Your task to perform on an android device: Show me popular videos on Youtube Image 0: 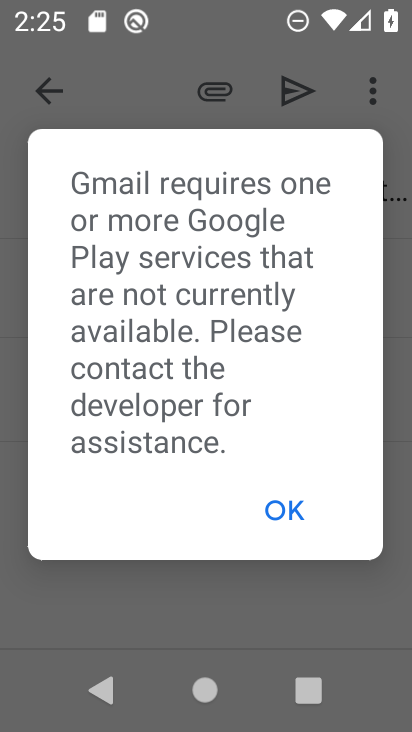
Step 0: press home button
Your task to perform on an android device: Show me popular videos on Youtube Image 1: 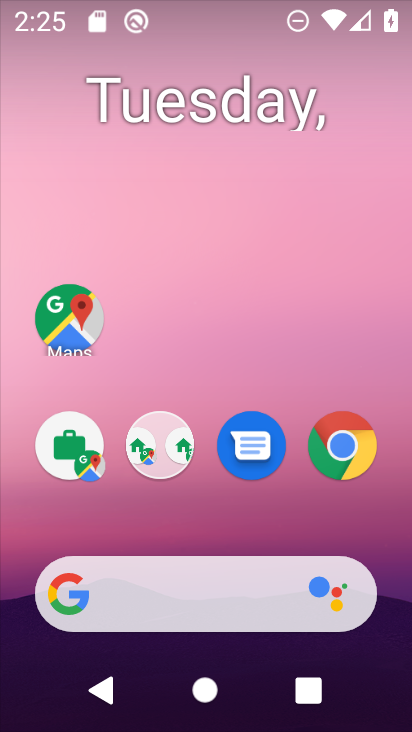
Step 1: drag from (259, 516) to (293, 178)
Your task to perform on an android device: Show me popular videos on Youtube Image 2: 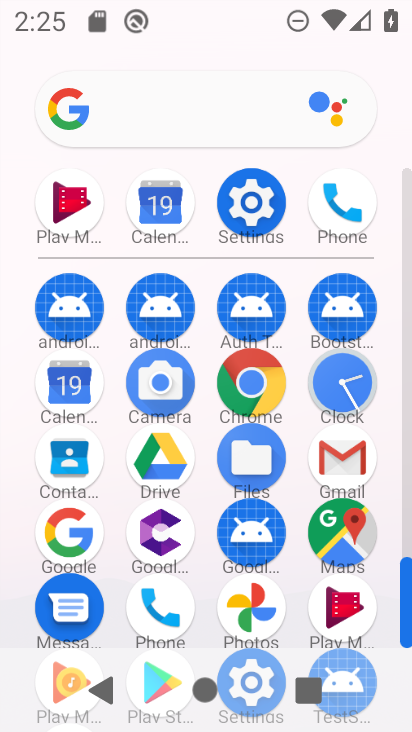
Step 2: click (197, 236)
Your task to perform on an android device: Show me popular videos on Youtube Image 3: 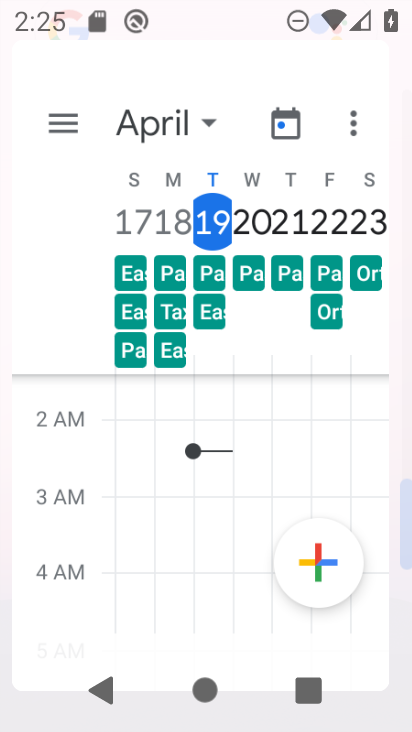
Step 3: drag from (204, 473) to (214, 220)
Your task to perform on an android device: Show me popular videos on Youtube Image 4: 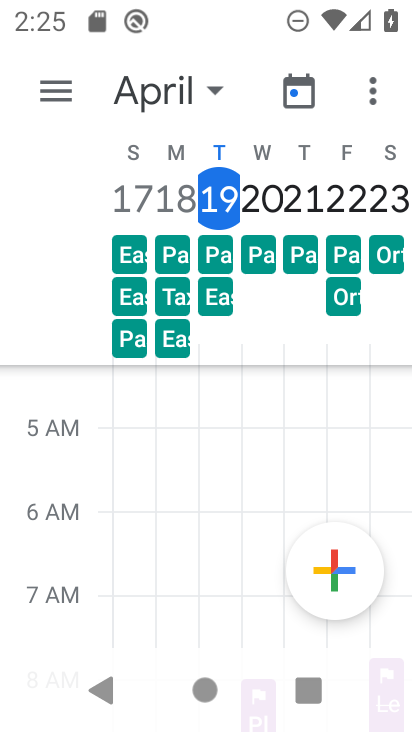
Step 4: press home button
Your task to perform on an android device: Show me popular videos on Youtube Image 5: 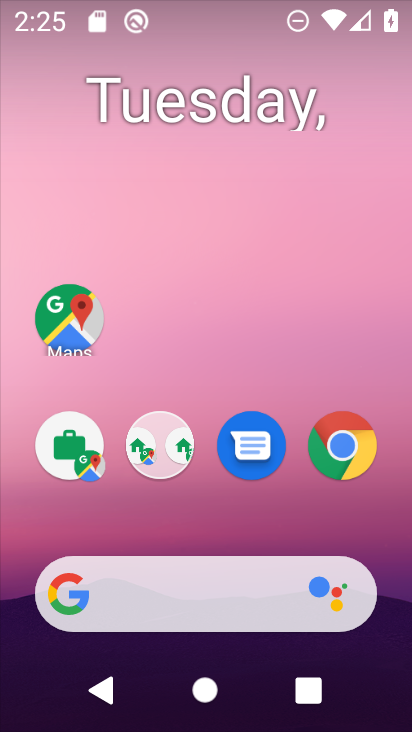
Step 5: drag from (220, 506) to (279, 191)
Your task to perform on an android device: Show me popular videos on Youtube Image 6: 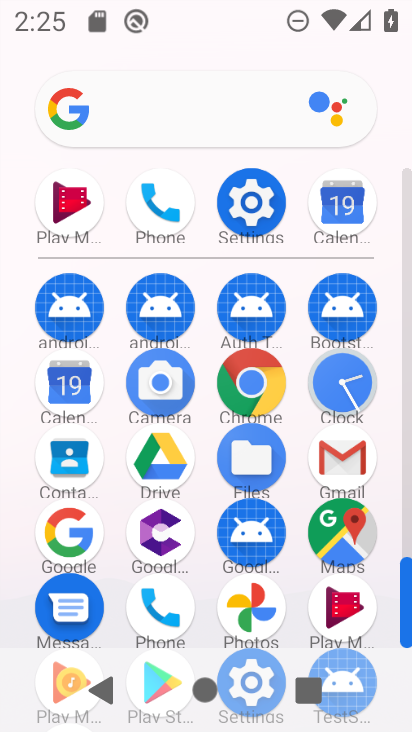
Step 6: drag from (201, 512) to (205, 190)
Your task to perform on an android device: Show me popular videos on Youtube Image 7: 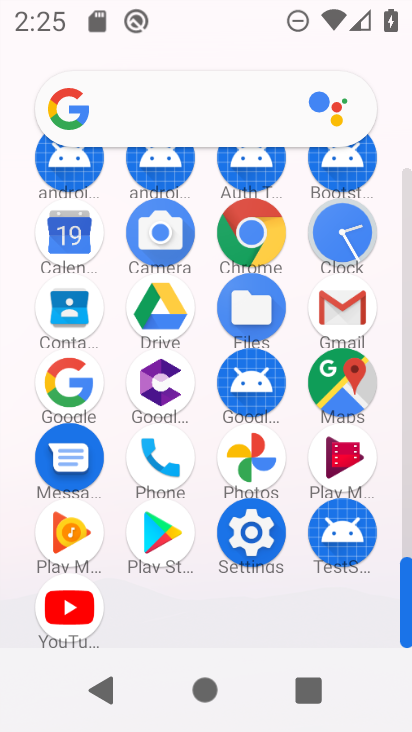
Step 7: click (93, 618)
Your task to perform on an android device: Show me popular videos on Youtube Image 8: 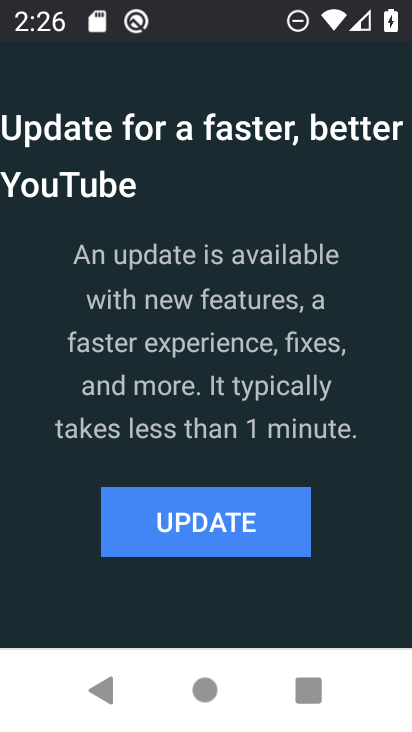
Step 8: click (219, 496)
Your task to perform on an android device: Show me popular videos on Youtube Image 9: 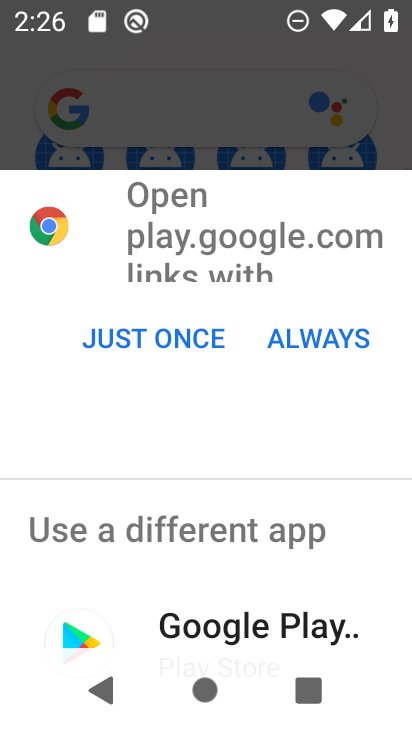
Step 9: click (293, 633)
Your task to perform on an android device: Show me popular videos on Youtube Image 10: 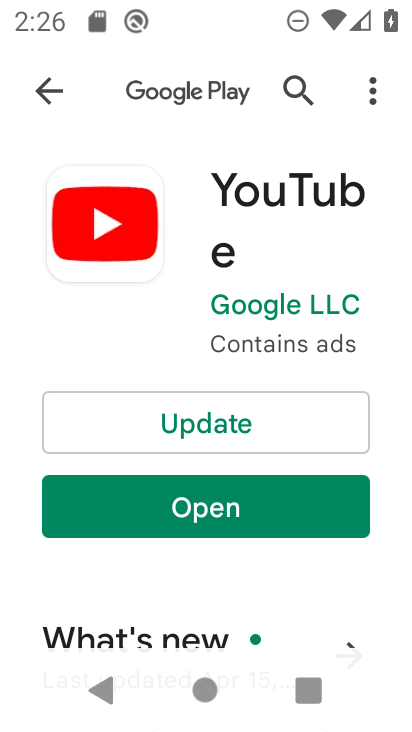
Step 10: click (282, 413)
Your task to perform on an android device: Show me popular videos on Youtube Image 11: 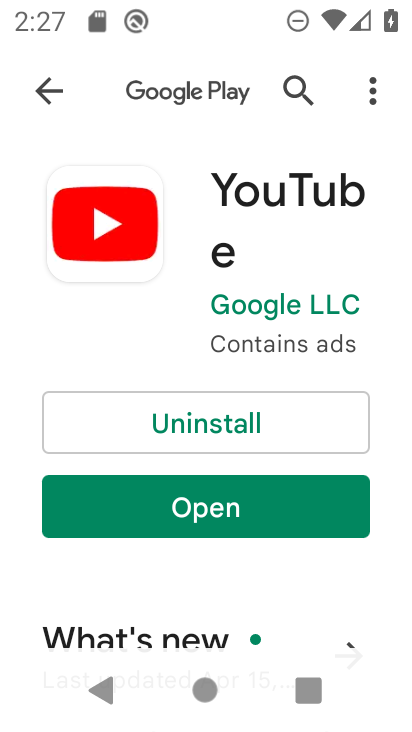
Step 11: click (245, 521)
Your task to perform on an android device: Show me popular videos on Youtube Image 12: 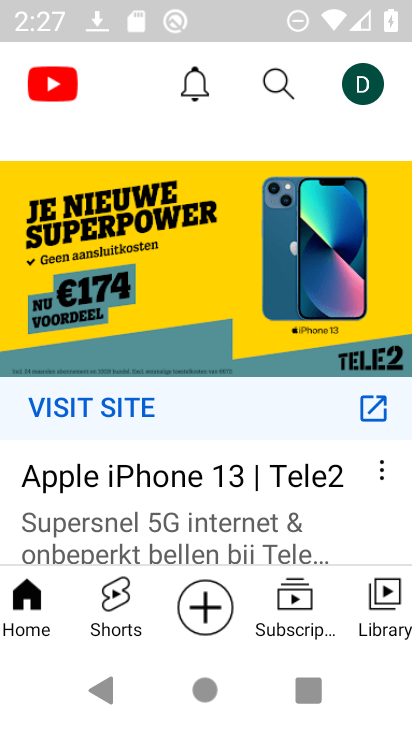
Step 12: drag from (205, 340) to (216, 540)
Your task to perform on an android device: Show me popular videos on Youtube Image 13: 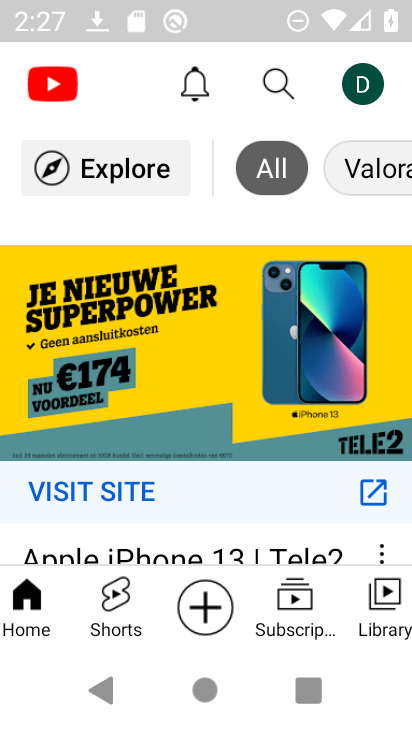
Step 13: click (125, 177)
Your task to perform on an android device: Show me popular videos on Youtube Image 14: 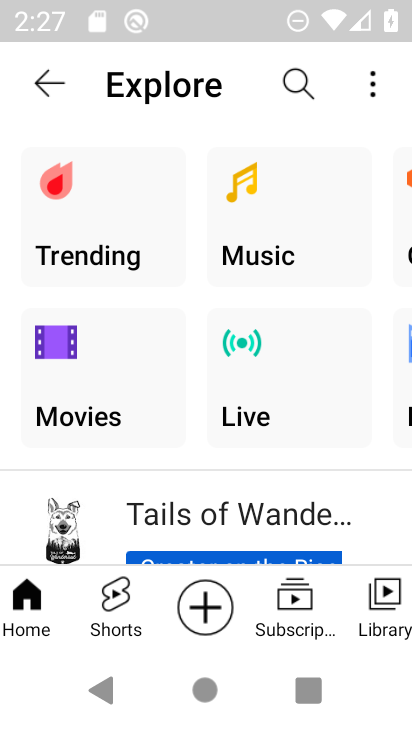
Step 14: drag from (277, 327) to (46, 387)
Your task to perform on an android device: Show me popular videos on Youtube Image 15: 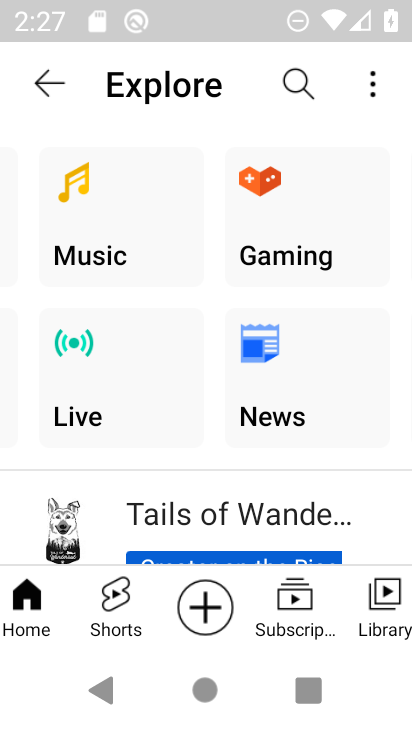
Step 15: drag from (267, 334) to (65, 357)
Your task to perform on an android device: Show me popular videos on Youtube Image 16: 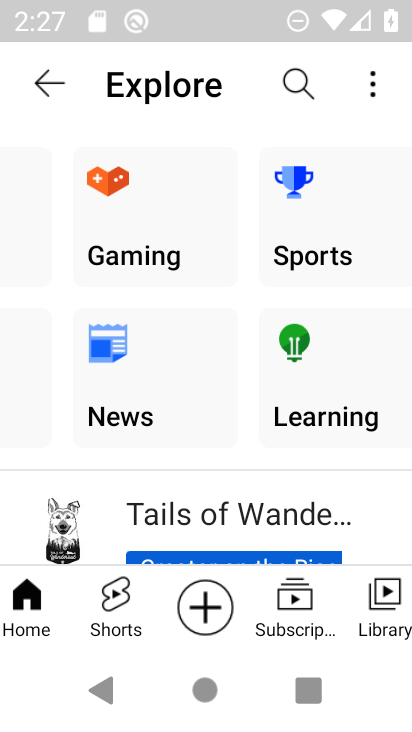
Step 16: drag from (345, 303) to (88, 332)
Your task to perform on an android device: Show me popular videos on Youtube Image 17: 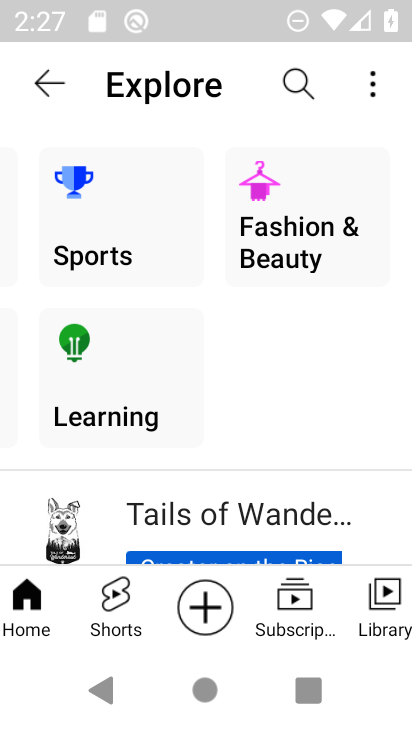
Step 17: drag from (91, 300) to (299, 300)
Your task to perform on an android device: Show me popular videos on Youtube Image 18: 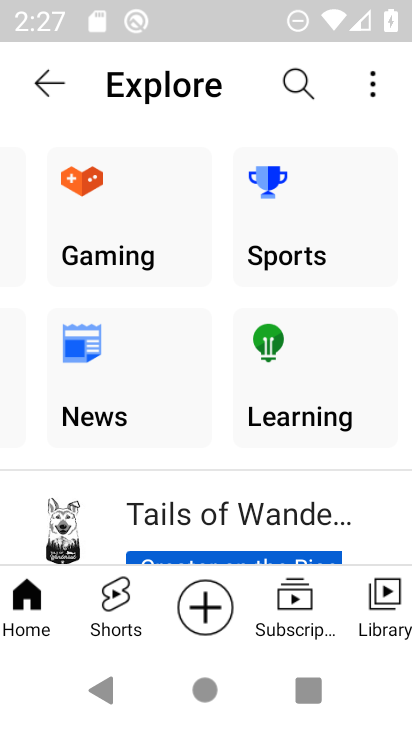
Step 18: drag from (121, 301) to (324, 293)
Your task to perform on an android device: Show me popular videos on Youtube Image 19: 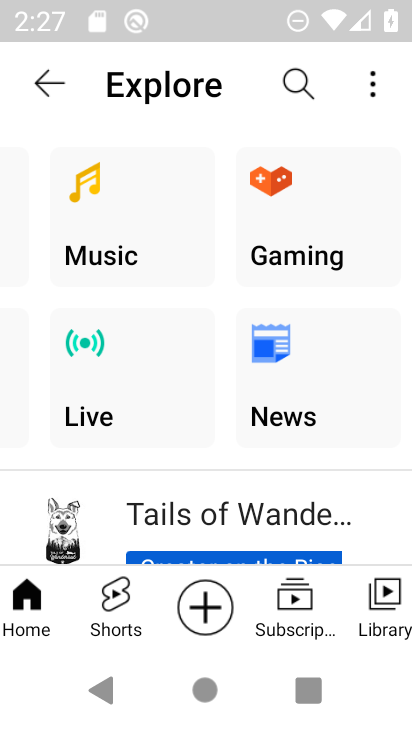
Step 19: drag from (115, 301) to (337, 303)
Your task to perform on an android device: Show me popular videos on Youtube Image 20: 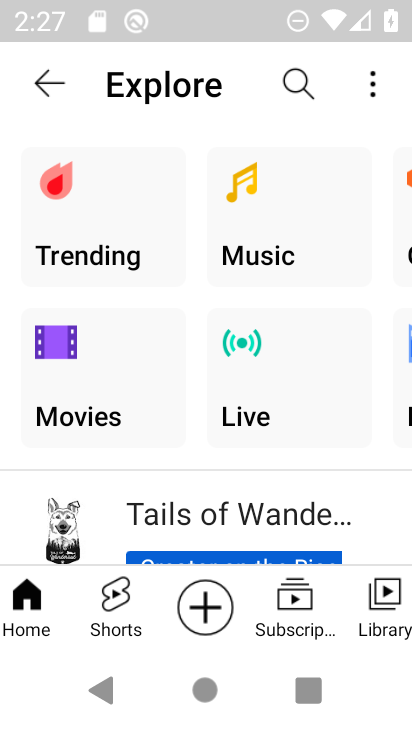
Step 20: click (135, 254)
Your task to perform on an android device: Show me popular videos on Youtube Image 21: 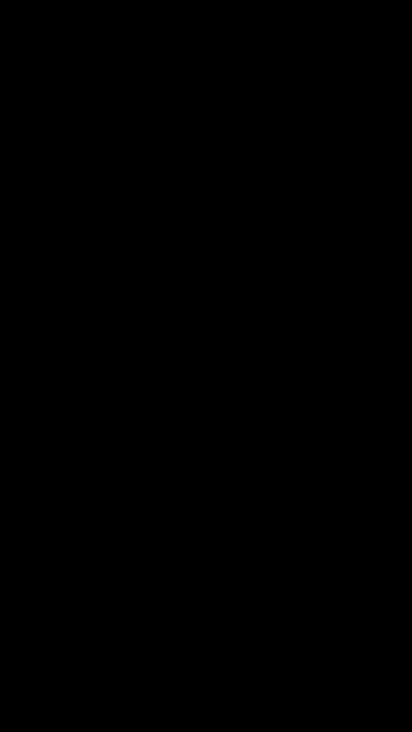
Step 21: task complete